Your task to perform on an android device: Open Google Maps Image 0: 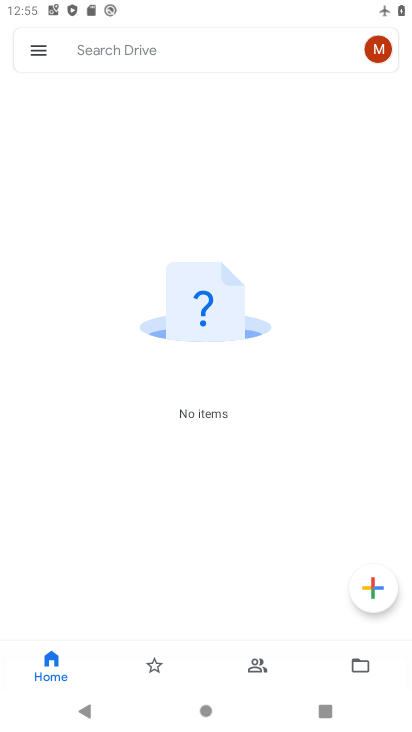
Step 0: press home button
Your task to perform on an android device: Open Google Maps Image 1: 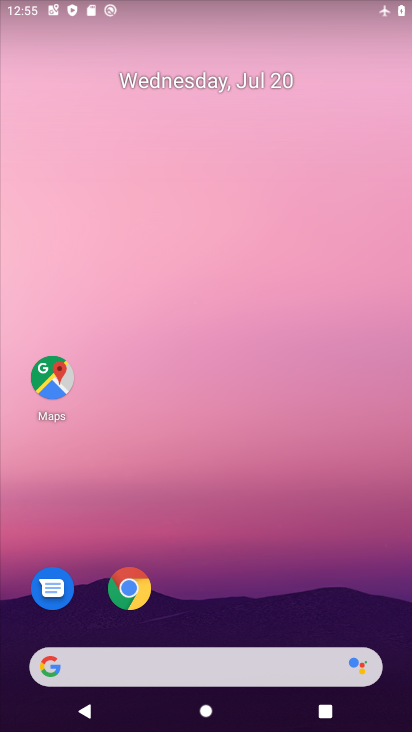
Step 1: click (45, 364)
Your task to perform on an android device: Open Google Maps Image 2: 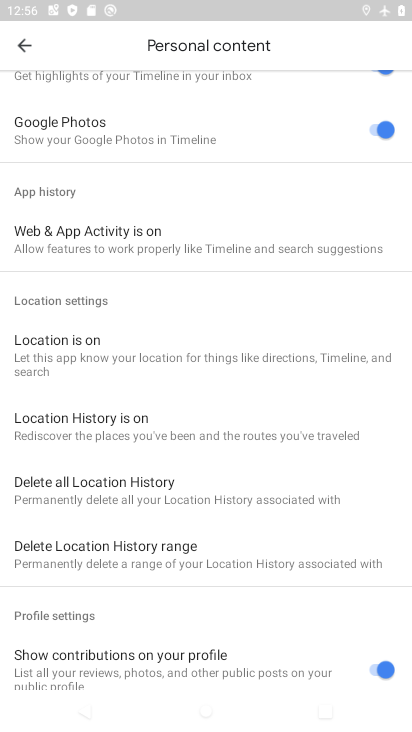
Step 2: click (20, 36)
Your task to perform on an android device: Open Google Maps Image 3: 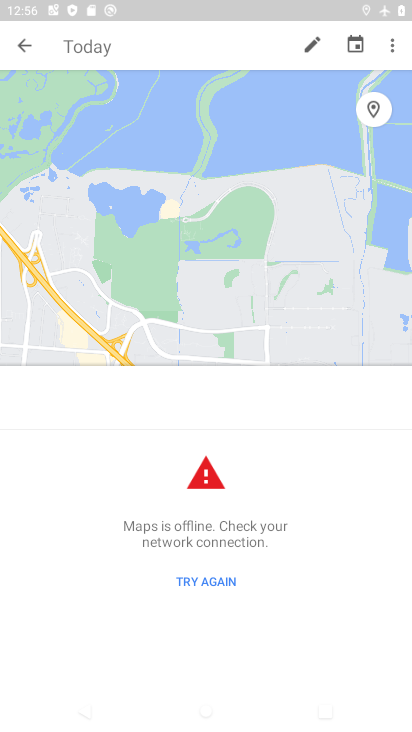
Step 3: click (13, 49)
Your task to perform on an android device: Open Google Maps Image 4: 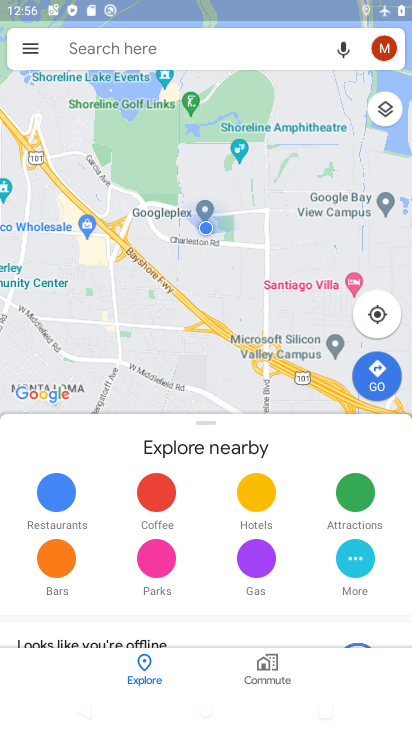
Step 4: task complete